Your task to perform on an android device: Show me productivity apps on the Play Store Image 0: 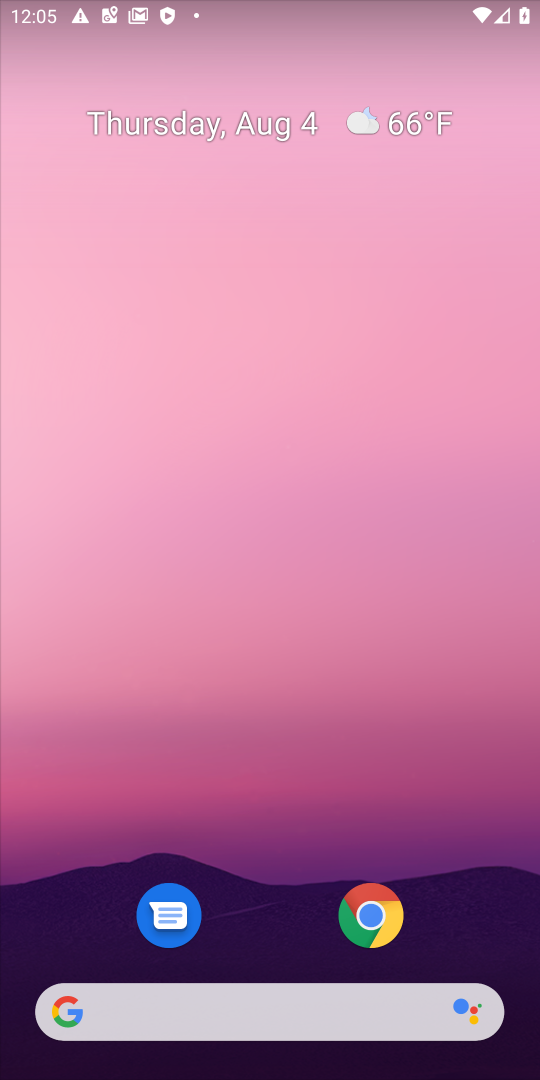
Step 0: drag from (314, 777) to (340, 11)
Your task to perform on an android device: Show me productivity apps on the Play Store Image 1: 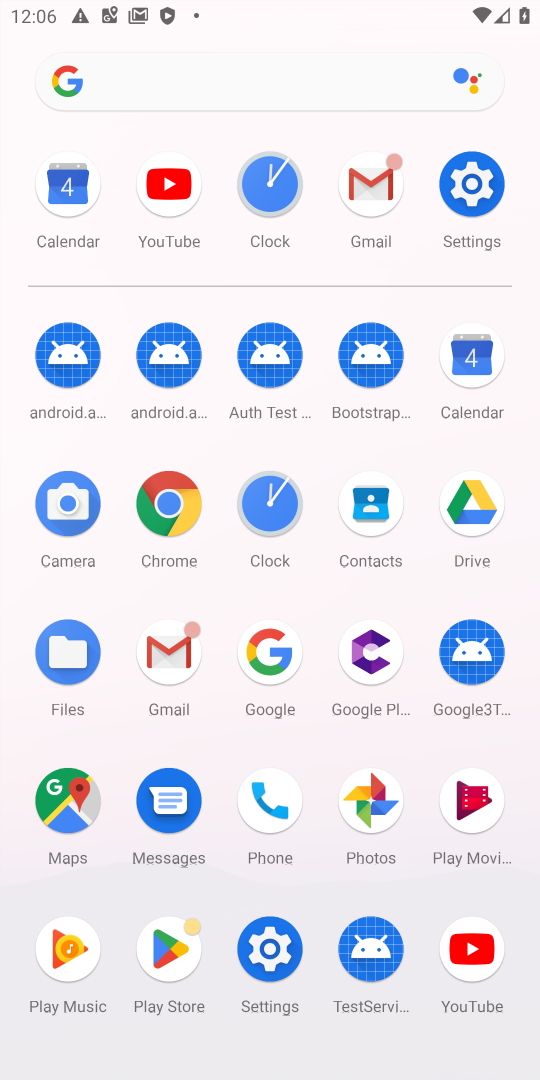
Step 1: click (165, 962)
Your task to perform on an android device: Show me productivity apps on the Play Store Image 2: 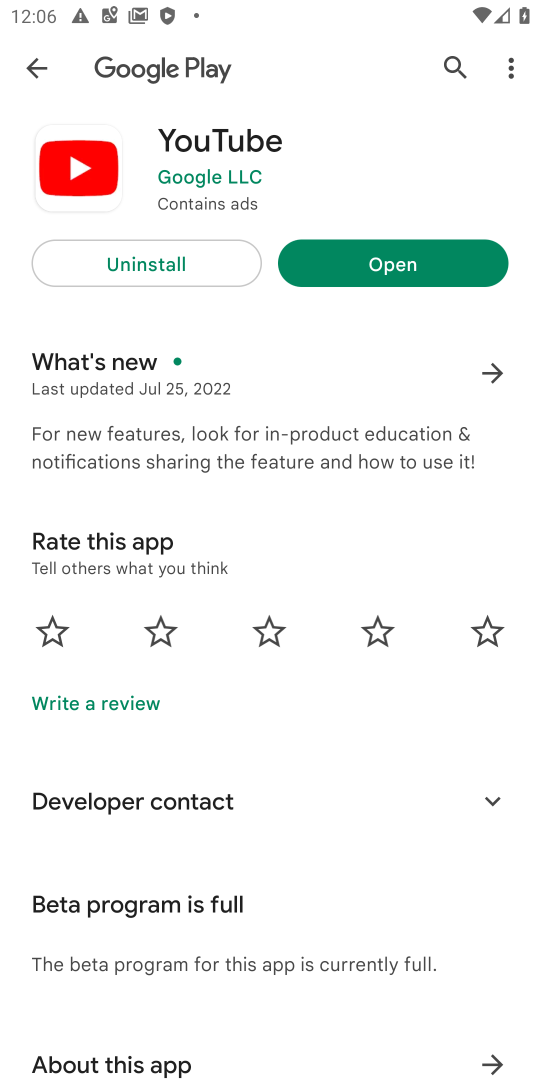
Step 2: click (33, 66)
Your task to perform on an android device: Show me productivity apps on the Play Store Image 3: 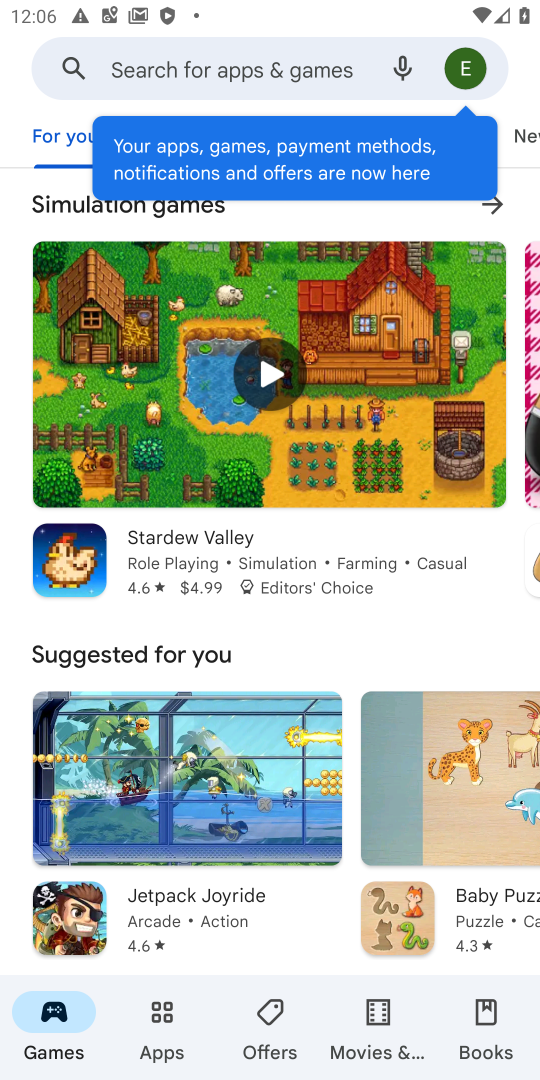
Step 3: click (182, 1028)
Your task to perform on an android device: Show me productivity apps on the Play Store Image 4: 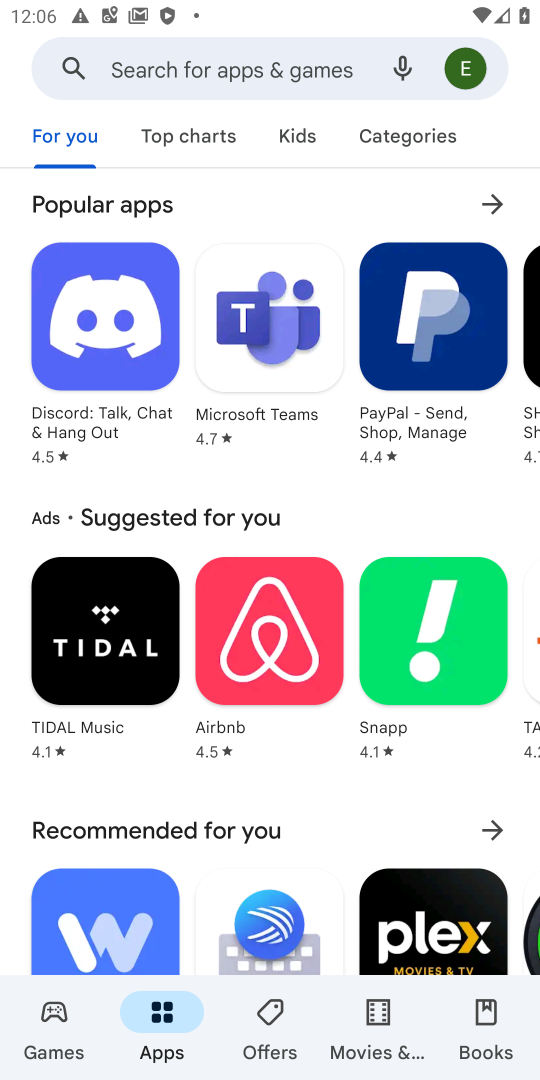
Step 4: click (406, 134)
Your task to perform on an android device: Show me productivity apps on the Play Store Image 5: 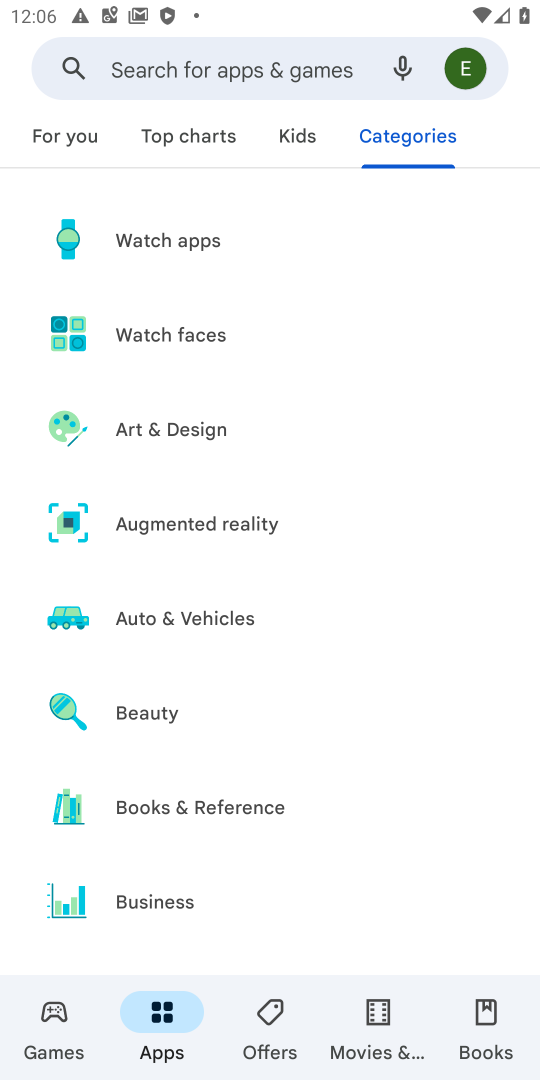
Step 5: drag from (280, 840) to (226, 167)
Your task to perform on an android device: Show me productivity apps on the Play Store Image 6: 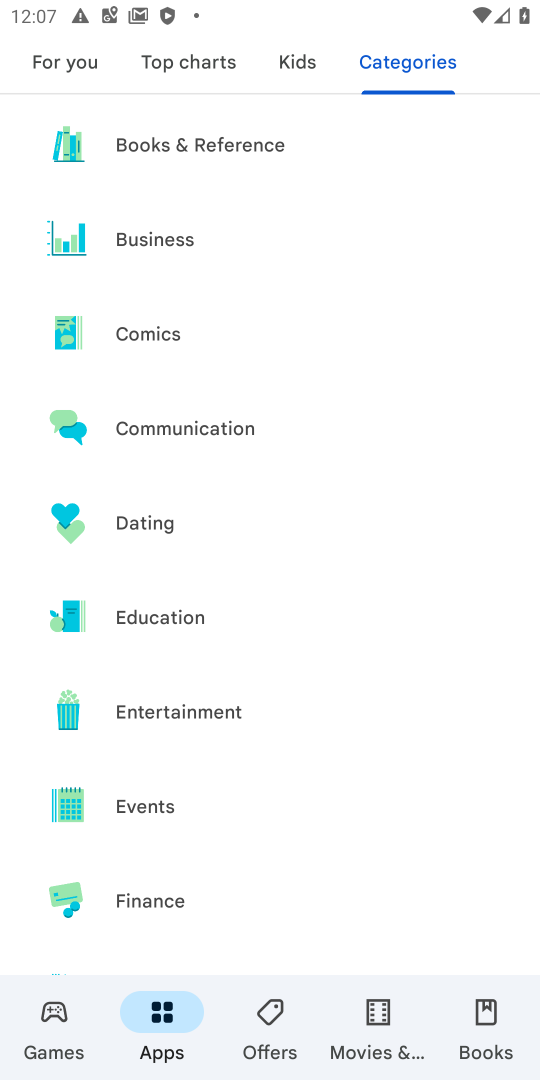
Step 6: drag from (212, 637) to (191, 309)
Your task to perform on an android device: Show me productivity apps on the Play Store Image 7: 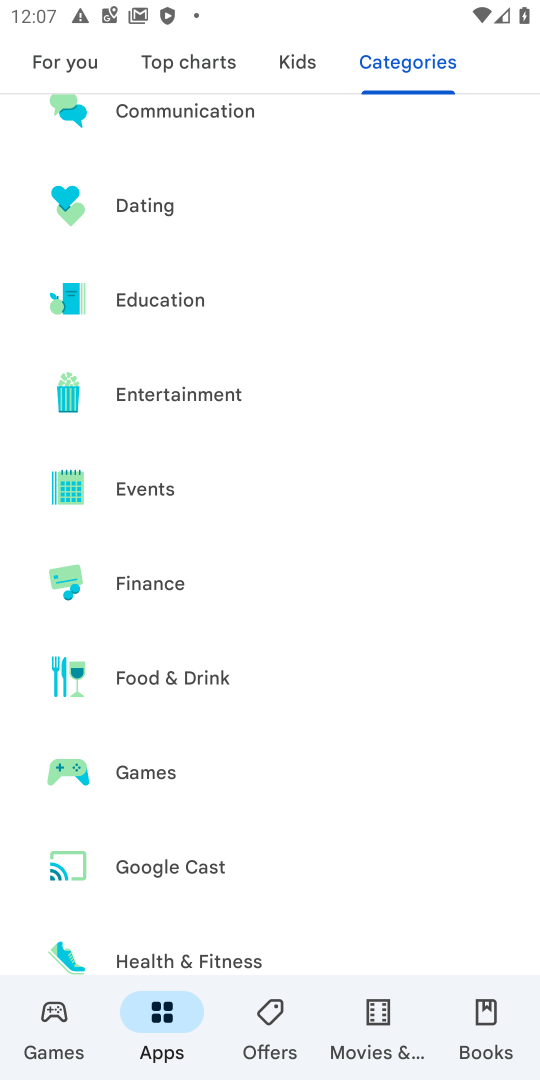
Step 7: drag from (247, 627) to (168, 224)
Your task to perform on an android device: Show me productivity apps on the Play Store Image 8: 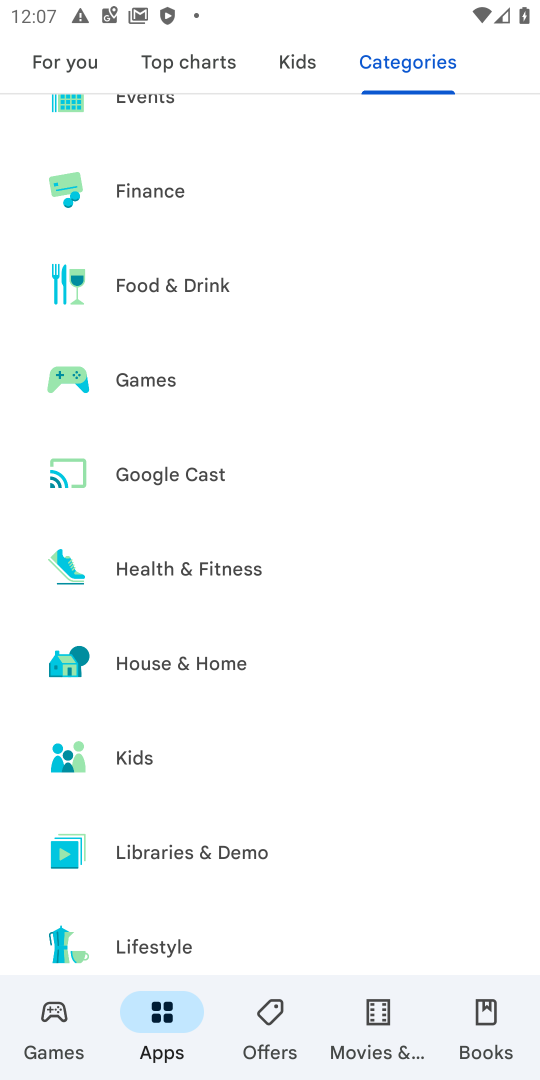
Step 8: drag from (221, 875) to (96, 354)
Your task to perform on an android device: Show me productivity apps on the Play Store Image 9: 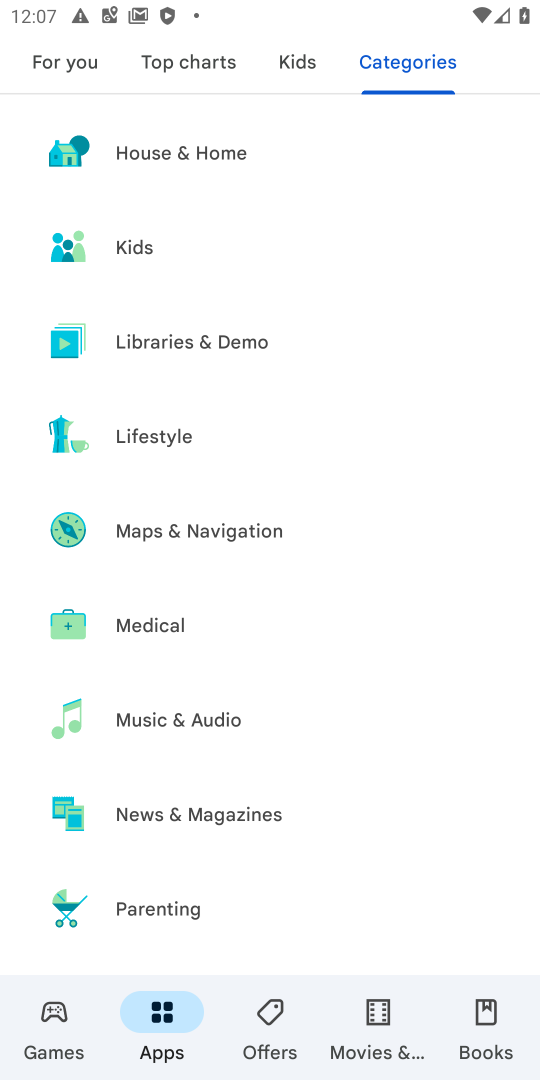
Step 9: drag from (225, 896) to (246, 591)
Your task to perform on an android device: Show me productivity apps on the Play Store Image 10: 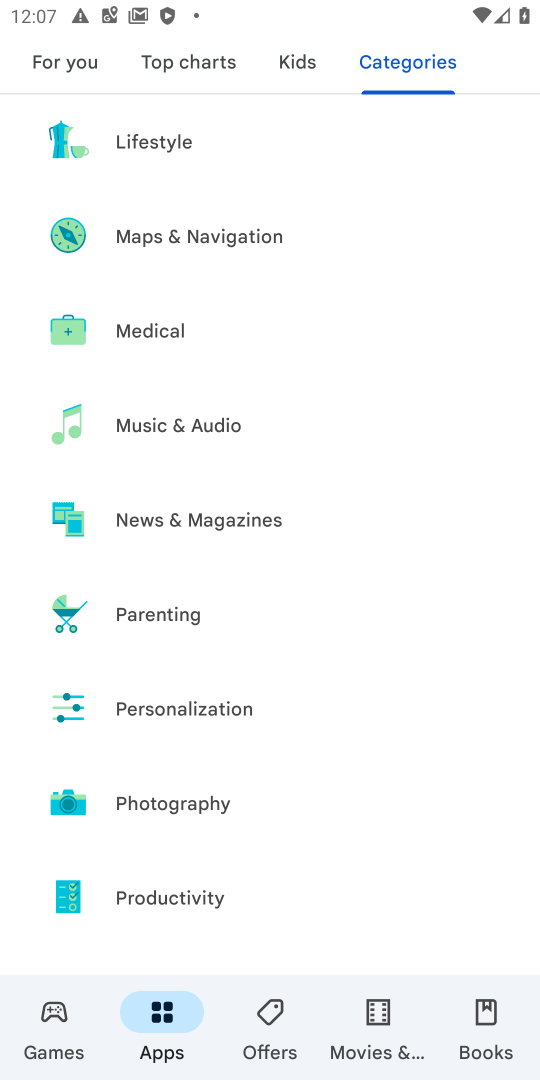
Step 10: click (188, 892)
Your task to perform on an android device: Show me productivity apps on the Play Store Image 11: 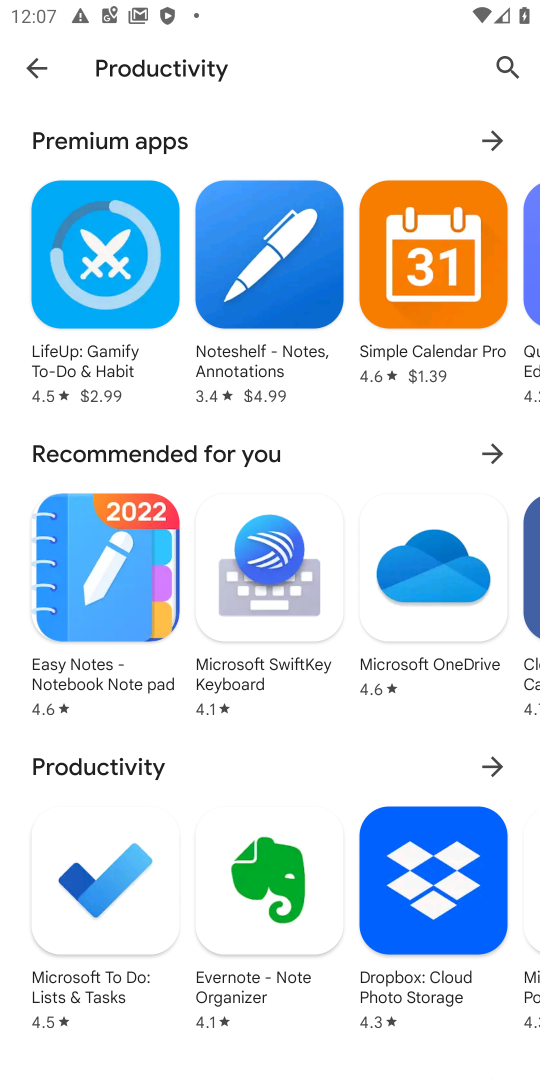
Step 11: task complete